Your task to perform on an android device: What's on my calendar tomorrow? Image 0: 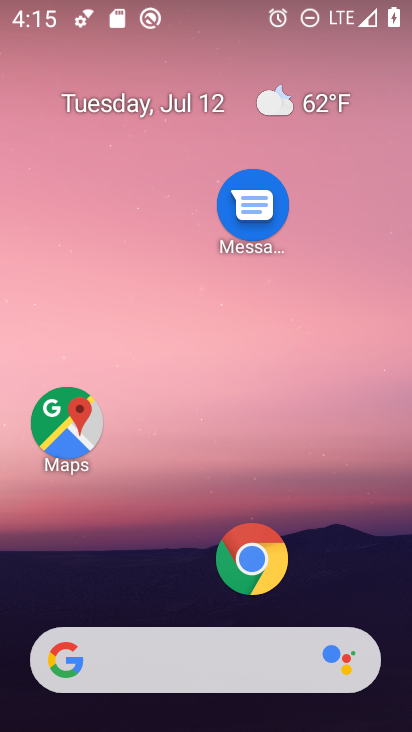
Step 0: drag from (137, 544) to (247, 5)
Your task to perform on an android device: What's on my calendar tomorrow? Image 1: 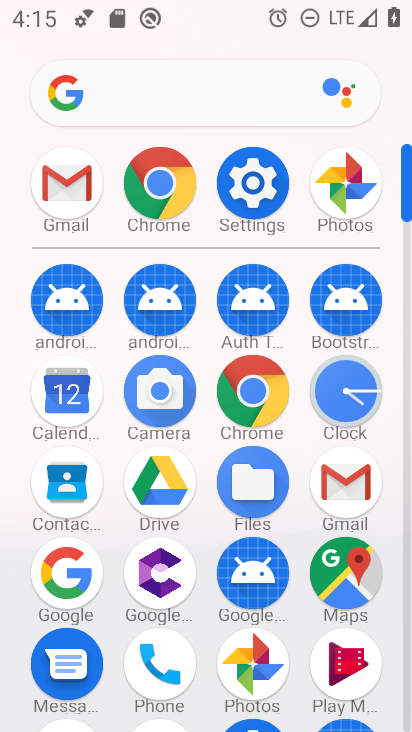
Step 1: click (72, 403)
Your task to perform on an android device: What's on my calendar tomorrow? Image 2: 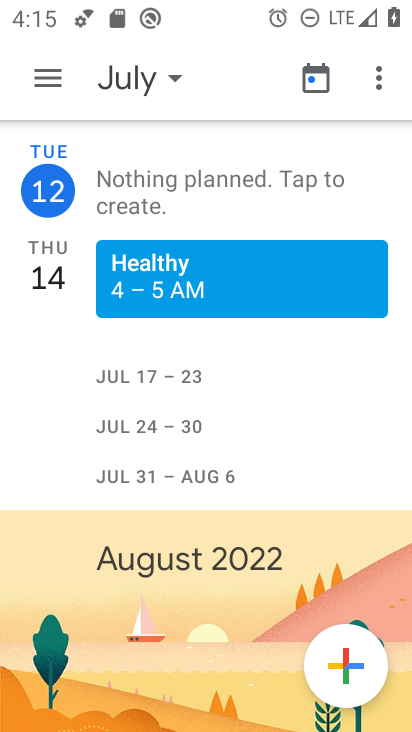
Step 2: task complete